Your task to perform on an android device: Go to ESPN.com Image 0: 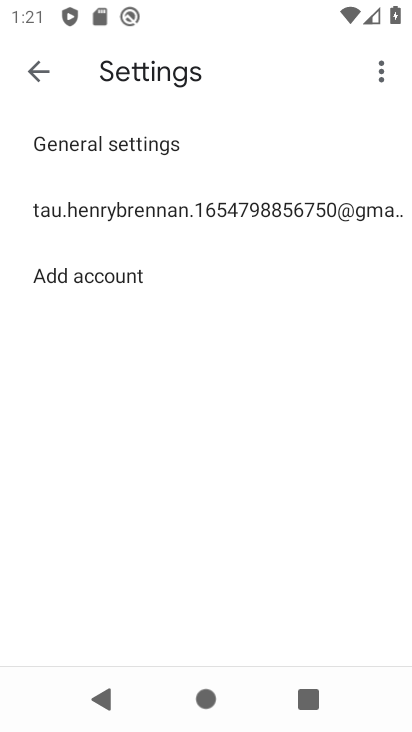
Step 0: press back button
Your task to perform on an android device: Go to ESPN.com Image 1: 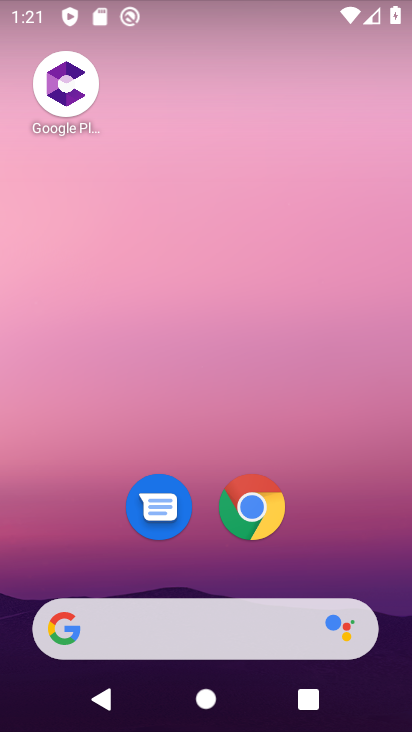
Step 1: click (254, 511)
Your task to perform on an android device: Go to ESPN.com Image 2: 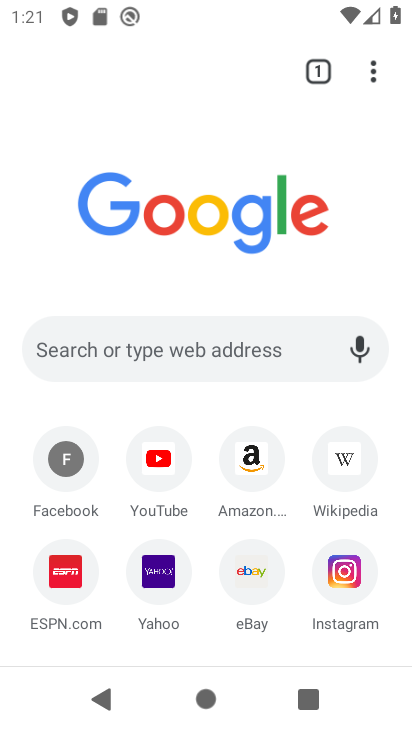
Step 2: click (62, 567)
Your task to perform on an android device: Go to ESPN.com Image 3: 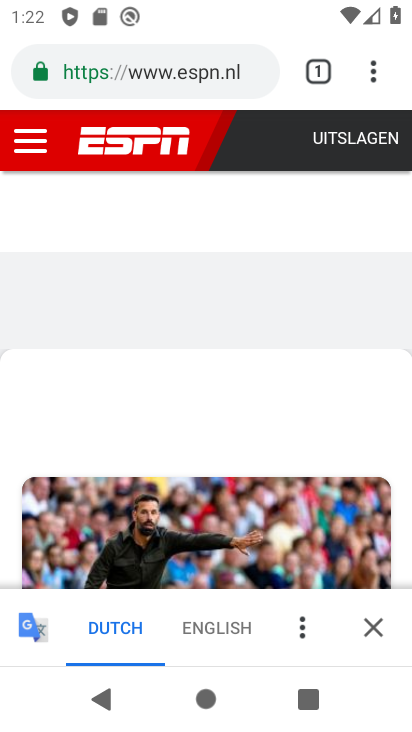
Step 3: task complete